Your task to perform on an android device: Is it going to rain today? Image 0: 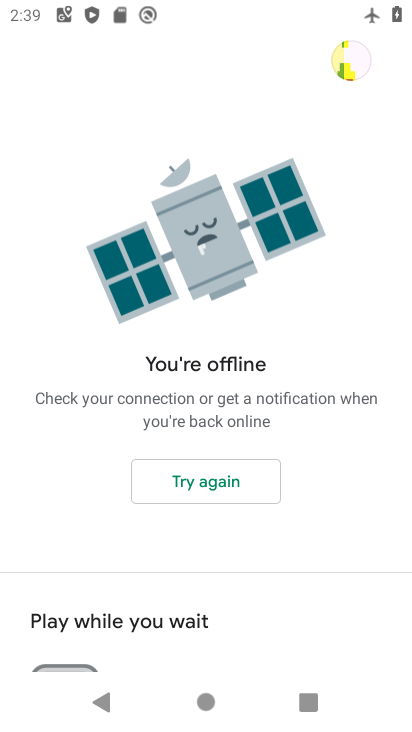
Step 0: press home button
Your task to perform on an android device: Is it going to rain today? Image 1: 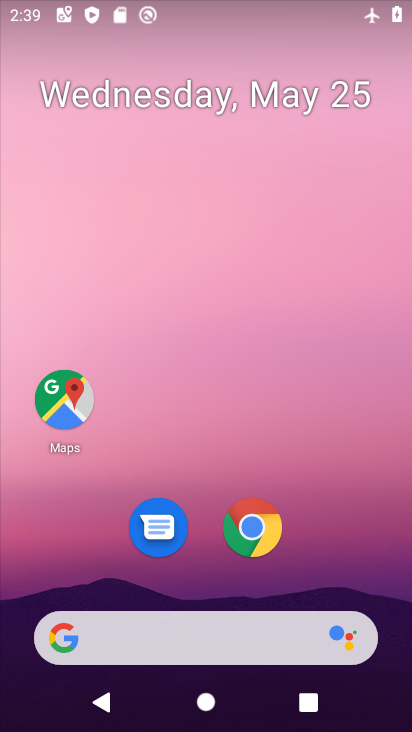
Step 1: click (165, 643)
Your task to perform on an android device: Is it going to rain today? Image 2: 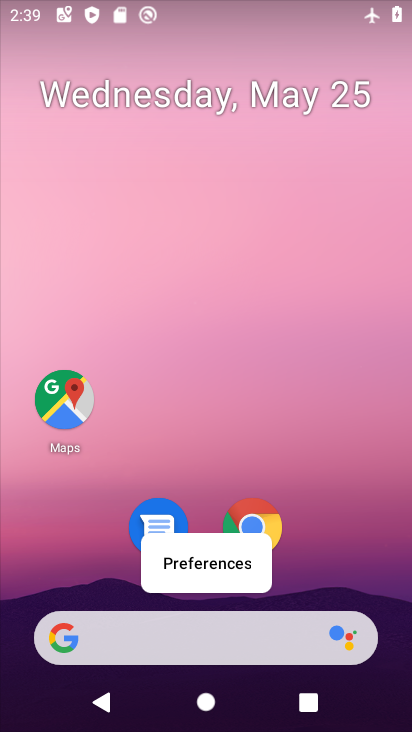
Step 2: click (172, 648)
Your task to perform on an android device: Is it going to rain today? Image 3: 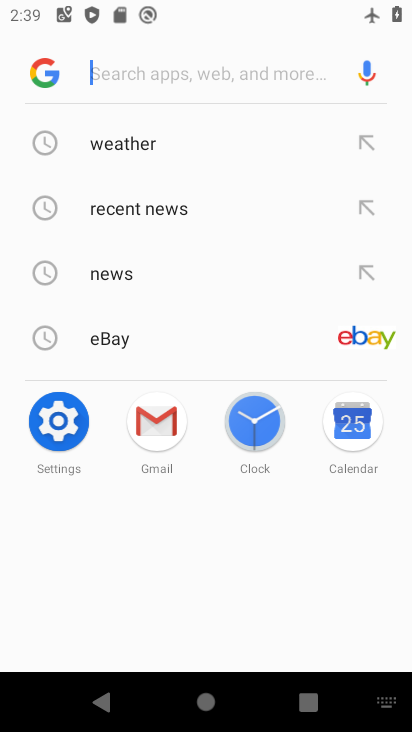
Step 3: click (121, 146)
Your task to perform on an android device: Is it going to rain today? Image 4: 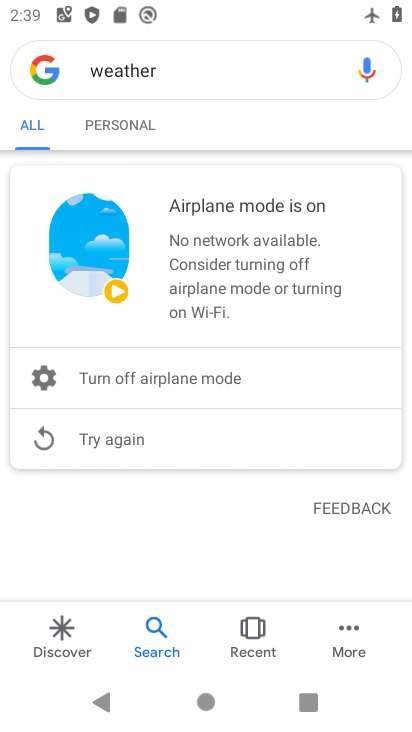
Step 4: drag from (316, 23) to (250, 479)
Your task to perform on an android device: Is it going to rain today? Image 5: 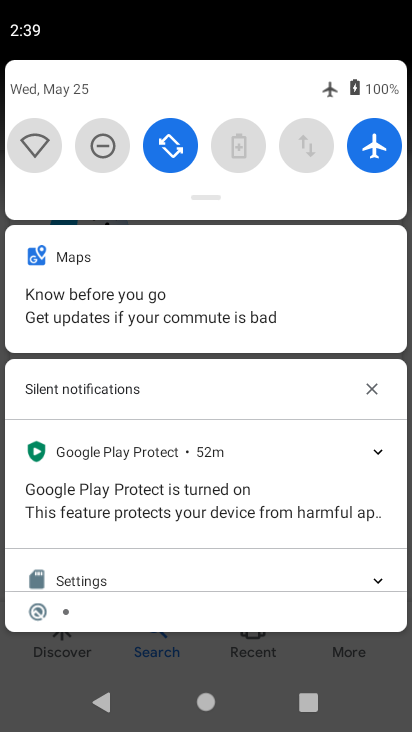
Step 5: click (371, 133)
Your task to perform on an android device: Is it going to rain today? Image 6: 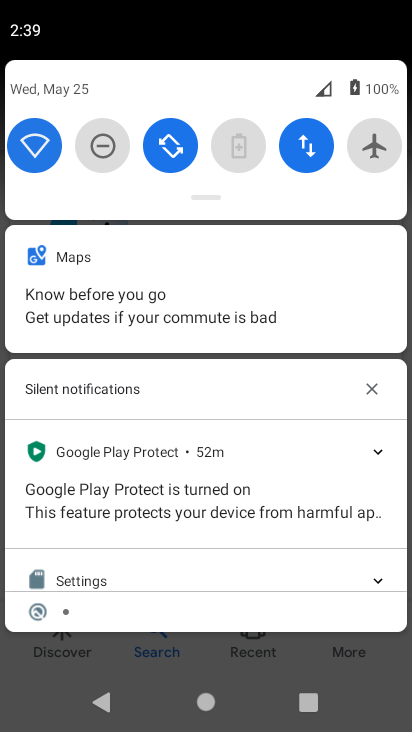
Step 6: click (52, 653)
Your task to perform on an android device: Is it going to rain today? Image 7: 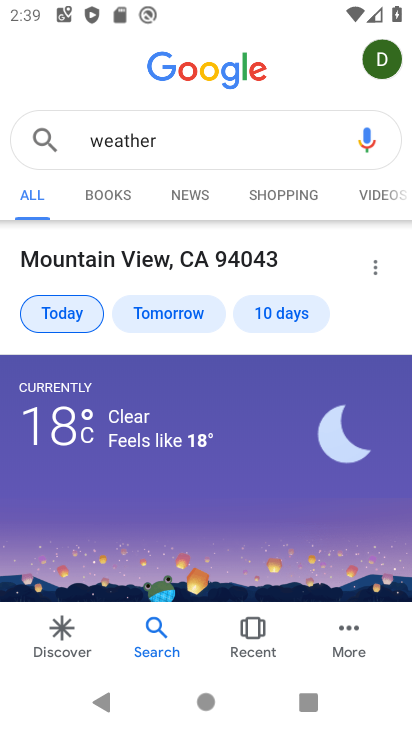
Step 7: task complete